Your task to perform on an android device: Search for pizza restaurants on Maps Image 0: 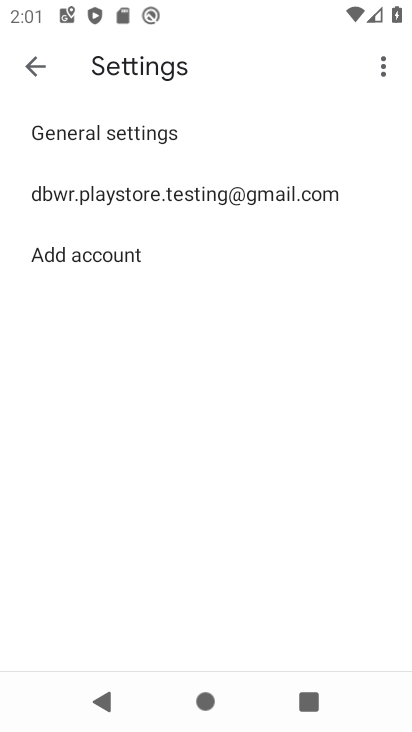
Step 0: press home button
Your task to perform on an android device: Search for pizza restaurants on Maps Image 1: 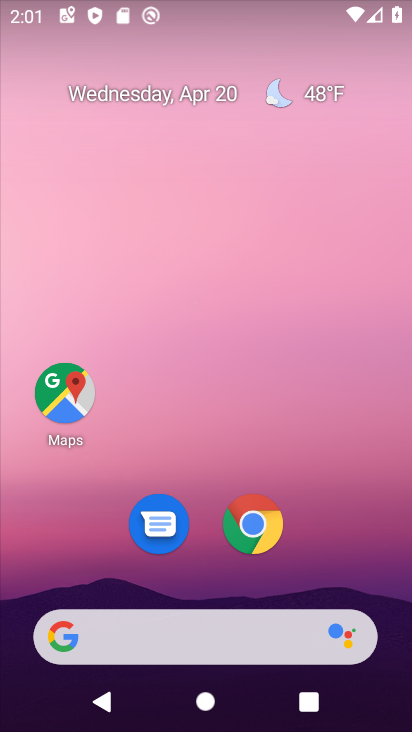
Step 1: click (60, 398)
Your task to perform on an android device: Search for pizza restaurants on Maps Image 2: 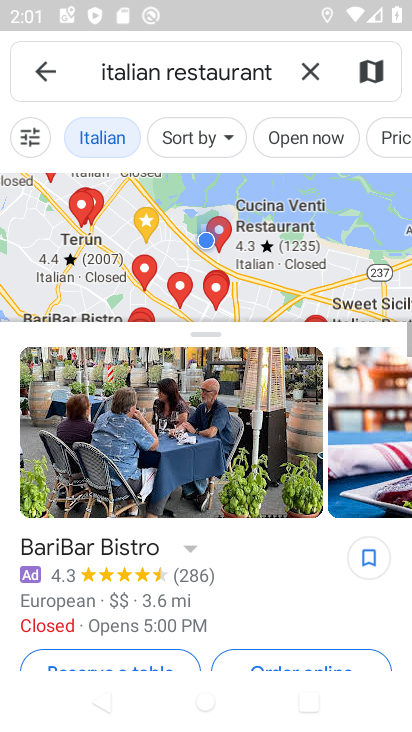
Step 2: click (317, 62)
Your task to perform on an android device: Search for pizza restaurants on Maps Image 3: 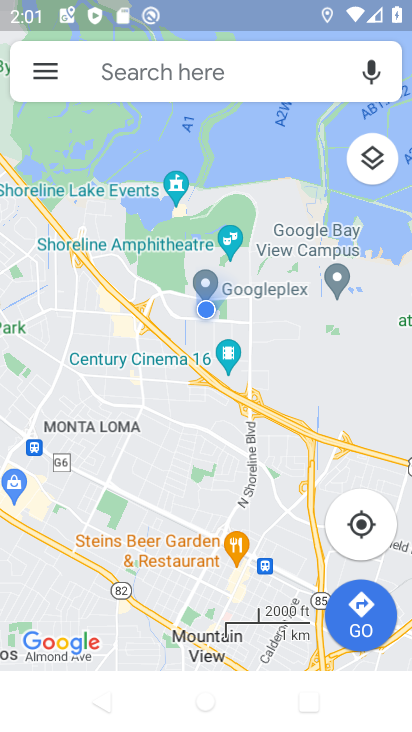
Step 3: click (317, 62)
Your task to perform on an android device: Search for pizza restaurants on Maps Image 4: 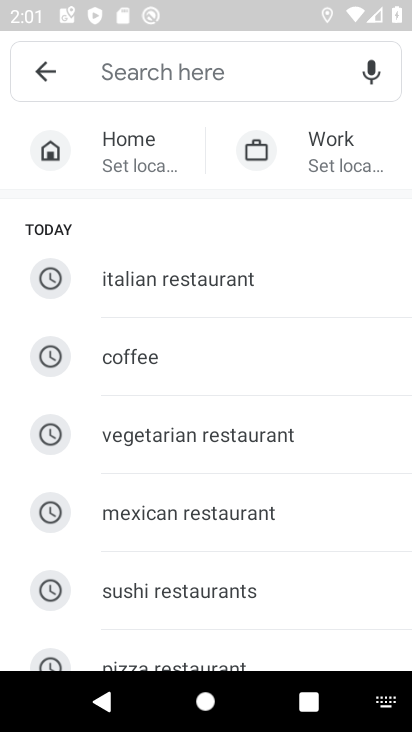
Step 4: click (213, 659)
Your task to perform on an android device: Search for pizza restaurants on Maps Image 5: 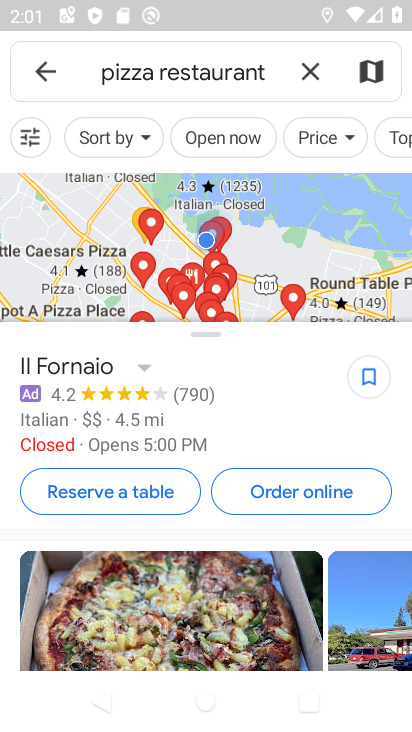
Step 5: task complete